Your task to perform on an android device: find photos in the google photos app Image 0: 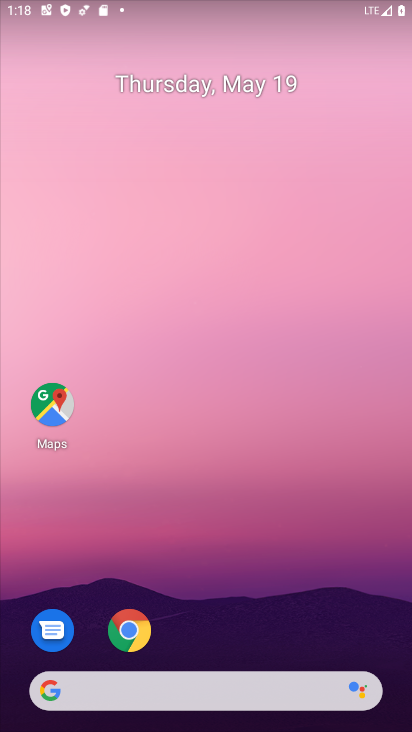
Step 0: drag from (245, 654) to (196, 128)
Your task to perform on an android device: find photos in the google photos app Image 1: 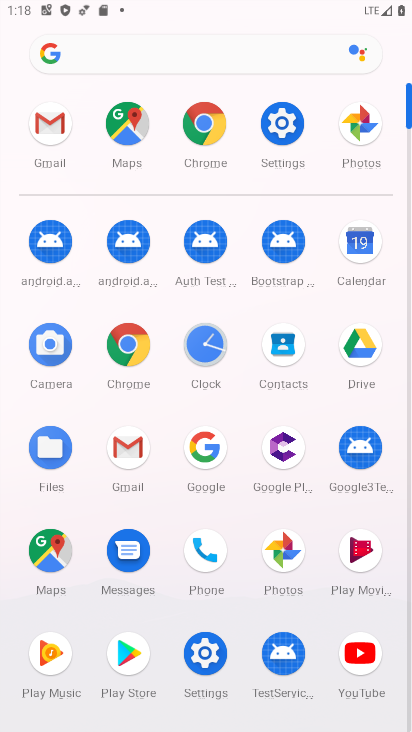
Step 1: click (285, 534)
Your task to perform on an android device: find photos in the google photos app Image 2: 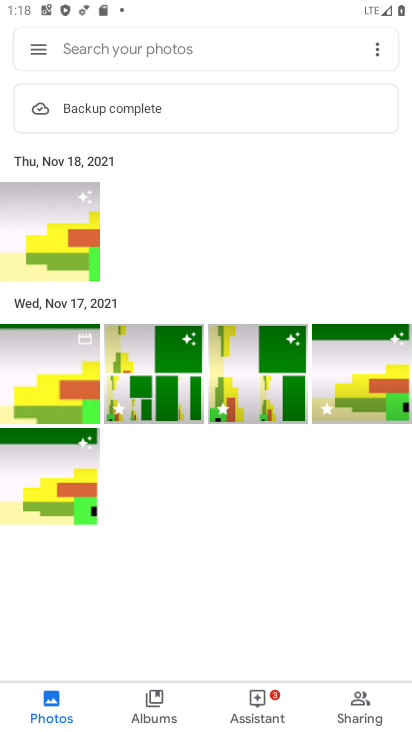
Step 2: task complete